Your task to perform on an android device: read, delete, or share a saved page in the chrome app Image 0: 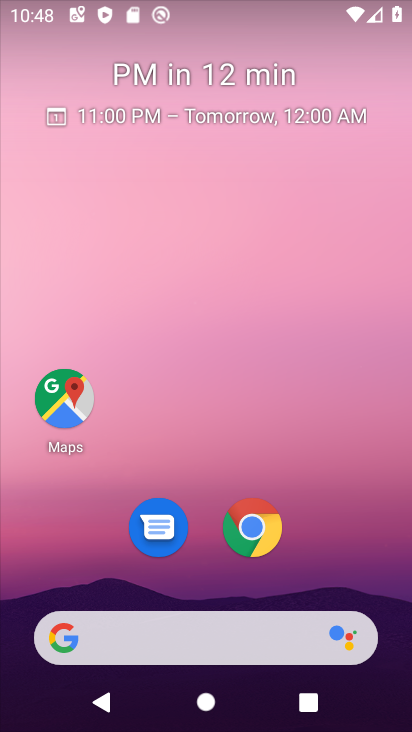
Step 0: click (264, 535)
Your task to perform on an android device: read, delete, or share a saved page in the chrome app Image 1: 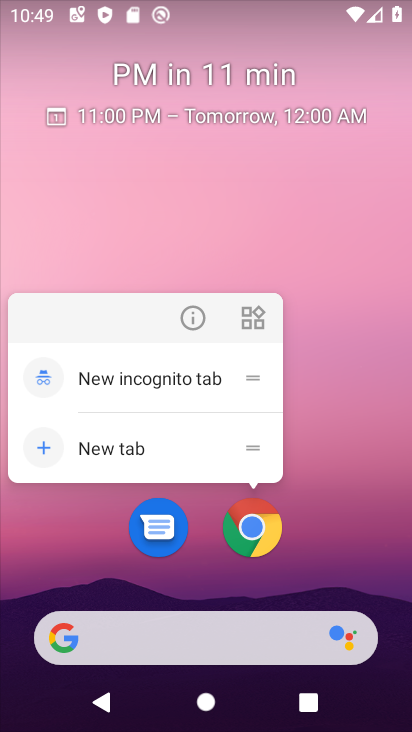
Step 1: click (264, 526)
Your task to perform on an android device: read, delete, or share a saved page in the chrome app Image 2: 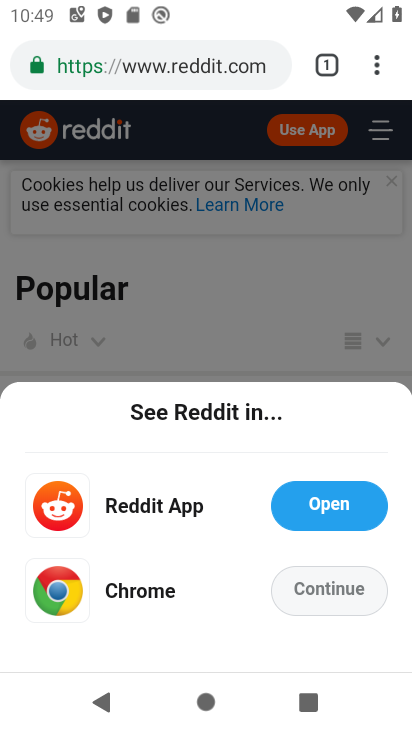
Step 2: drag from (376, 60) to (138, 434)
Your task to perform on an android device: read, delete, or share a saved page in the chrome app Image 3: 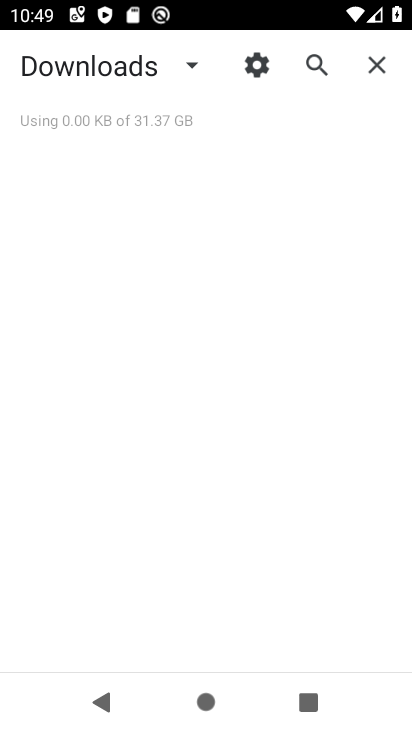
Step 3: click (163, 71)
Your task to perform on an android device: read, delete, or share a saved page in the chrome app Image 4: 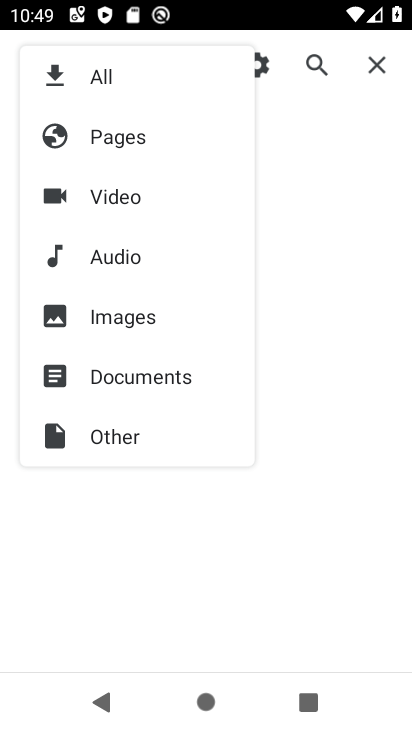
Step 4: click (129, 139)
Your task to perform on an android device: read, delete, or share a saved page in the chrome app Image 5: 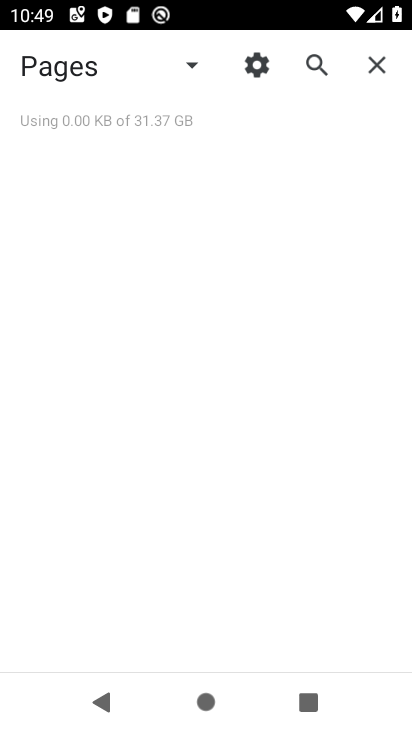
Step 5: task complete